Your task to perform on an android device: check android version Image 0: 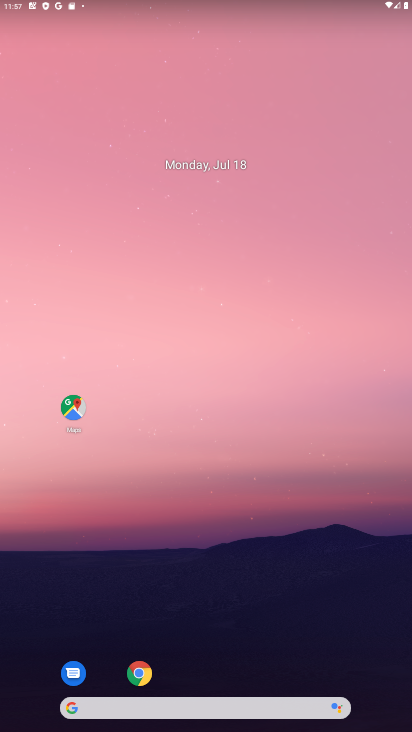
Step 0: drag from (203, 711) to (283, 202)
Your task to perform on an android device: check android version Image 1: 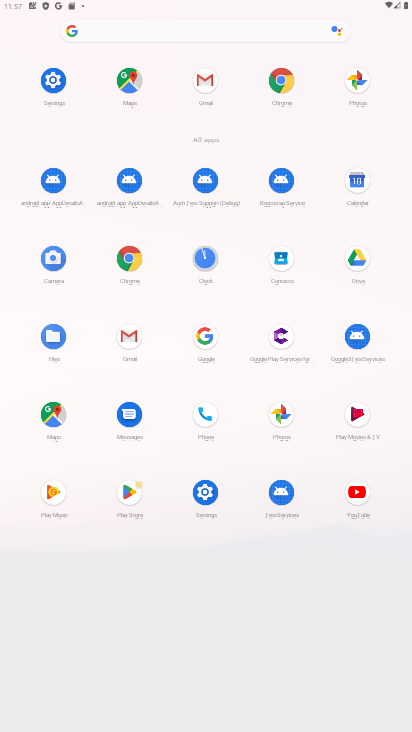
Step 1: click (50, 83)
Your task to perform on an android device: check android version Image 2: 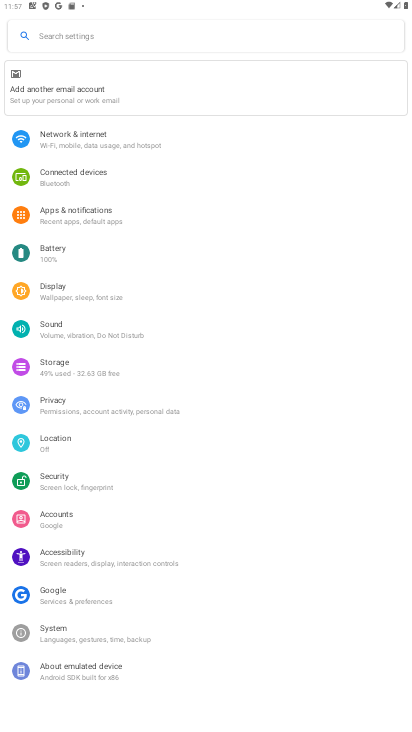
Step 2: drag from (198, 623) to (274, 260)
Your task to perform on an android device: check android version Image 3: 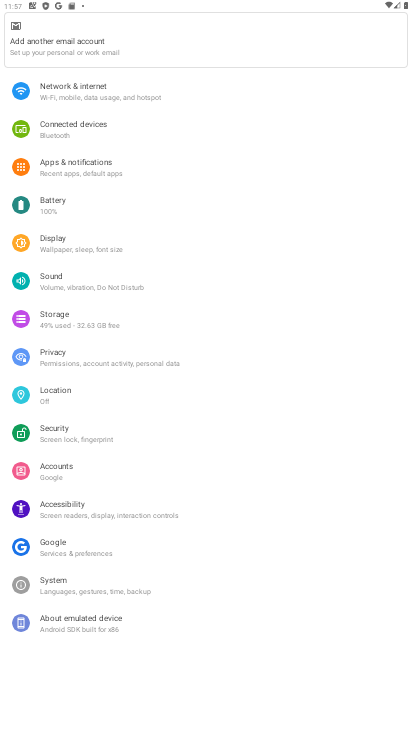
Step 3: click (104, 621)
Your task to perform on an android device: check android version Image 4: 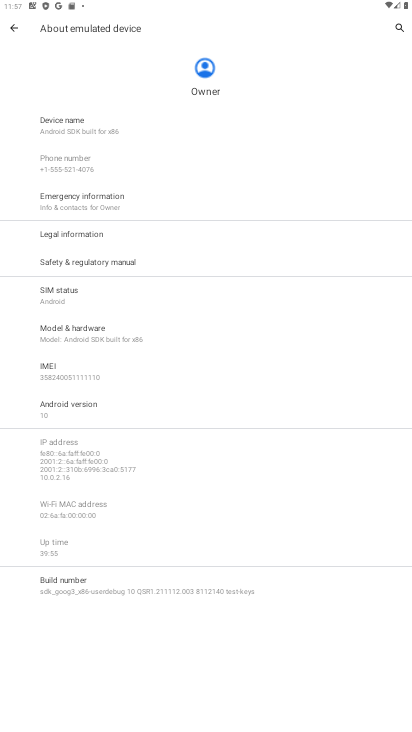
Step 4: task complete